Your task to perform on an android device: Open Chrome and go to the settings page Image 0: 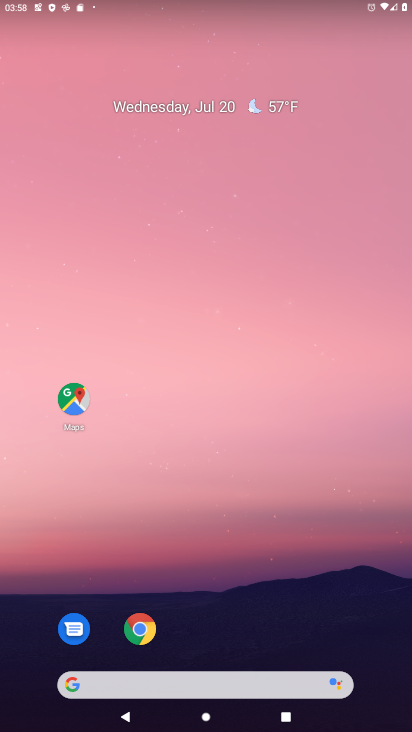
Step 0: click (141, 628)
Your task to perform on an android device: Open Chrome and go to the settings page Image 1: 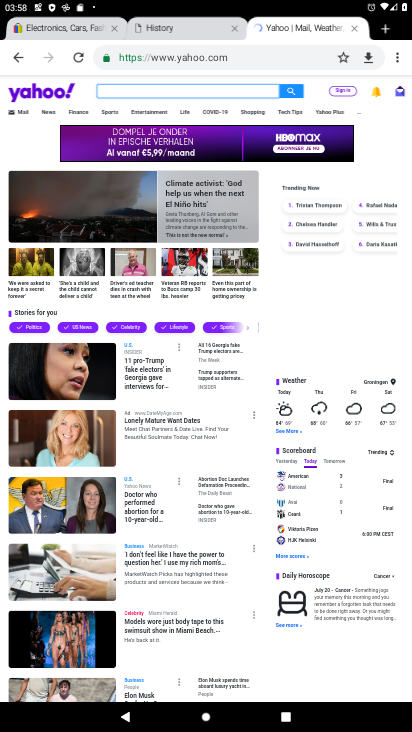
Step 1: click (399, 64)
Your task to perform on an android device: Open Chrome and go to the settings page Image 2: 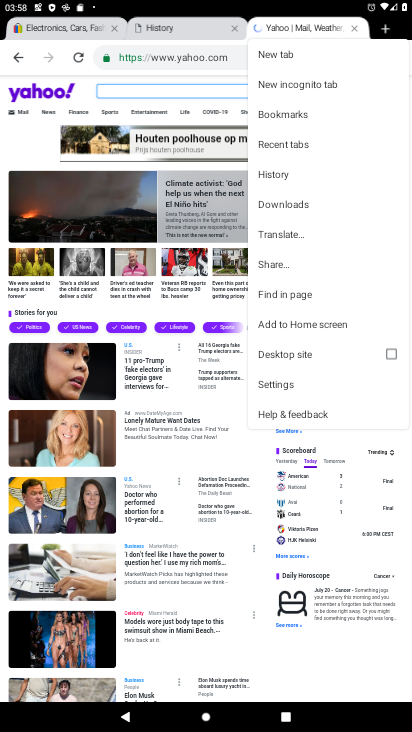
Step 2: click (270, 378)
Your task to perform on an android device: Open Chrome and go to the settings page Image 3: 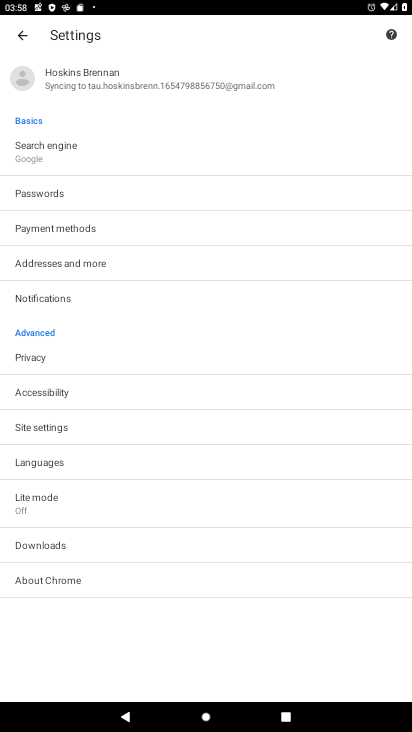
Step 3: task complete